Your task to perform on an android device: Open Amazon Image 0: 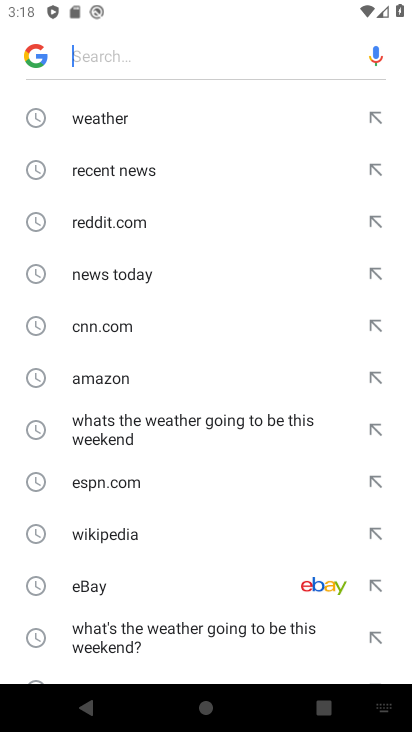
Step 0: press home button
Your task to perform on an android device: Open Amazon Image 1: 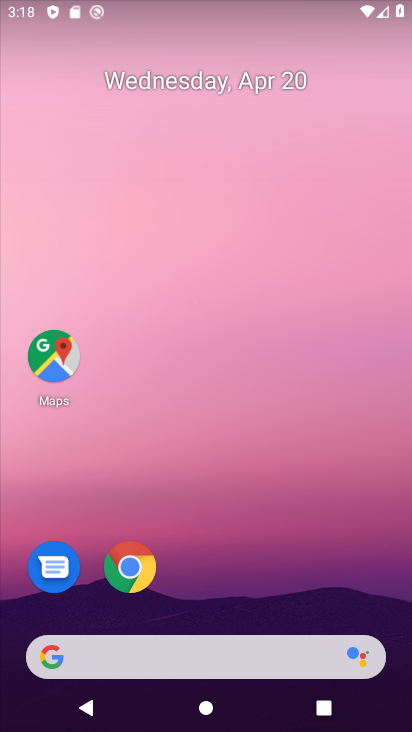
Step 1: drag from (394, 580) to (276, 133)
Your task to perform on an android device: Open Amazon Image 2: 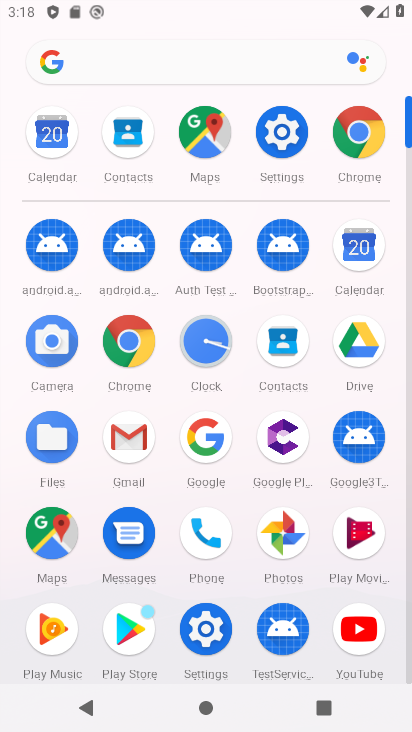
Step 2: click (357, 156)
Your task to perform on an android device: Open Amazon Image 3: 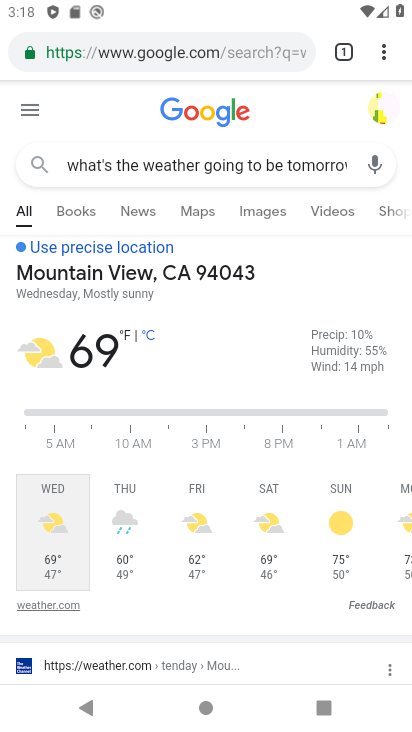
Step 3: click (341, 58)
Your task to perform on an android device: Open Amazon Image 4: 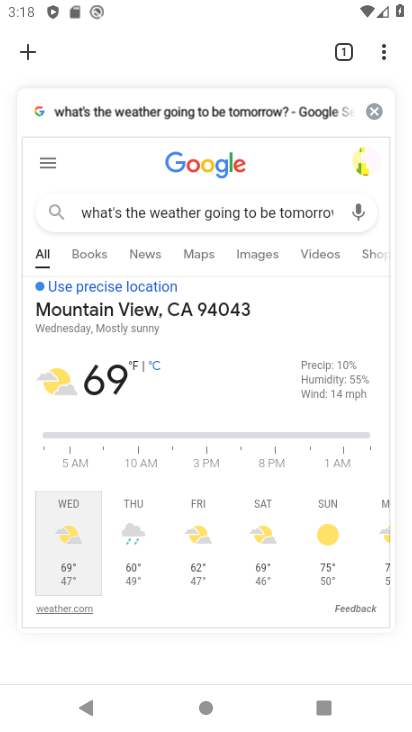
Step 4: click (42, 52)
Your task to perform on an android device: Open Amazon Image 5: 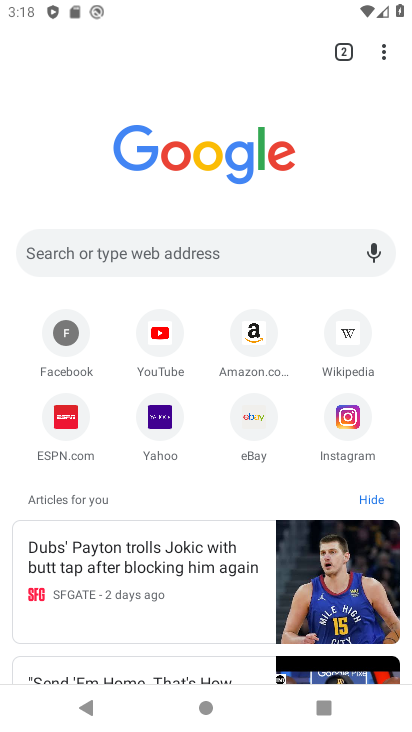
Step 5: click (238, 340)
Your task to perform on an android device: Open Amazon Image 6: 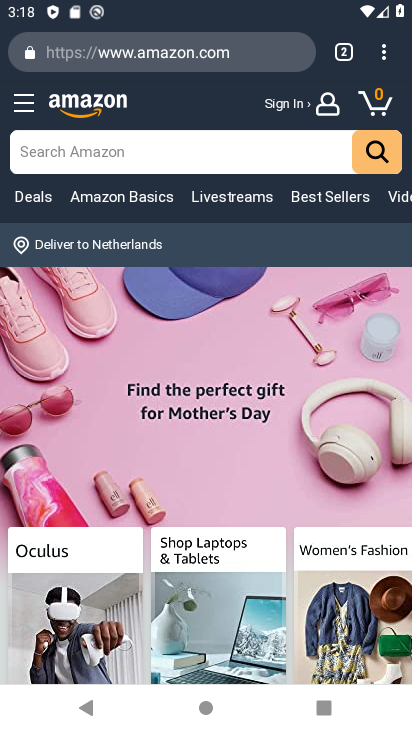
Step 6: task complete